Your task to perform on an android device: Open Amazon Image 0: 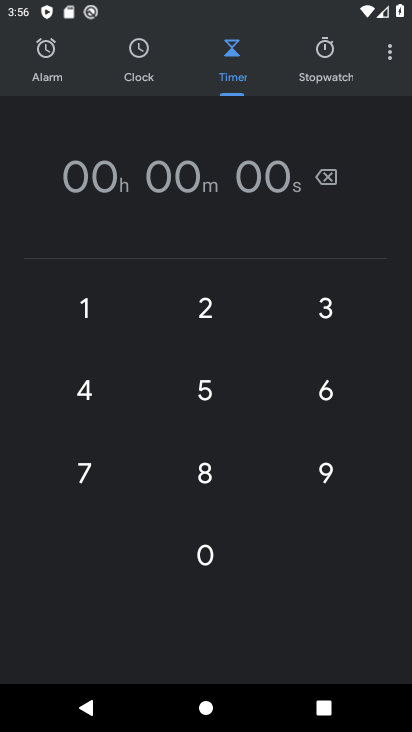
Step 0: press home button
Your task to perform on an android device: Open Amazon Image 1: 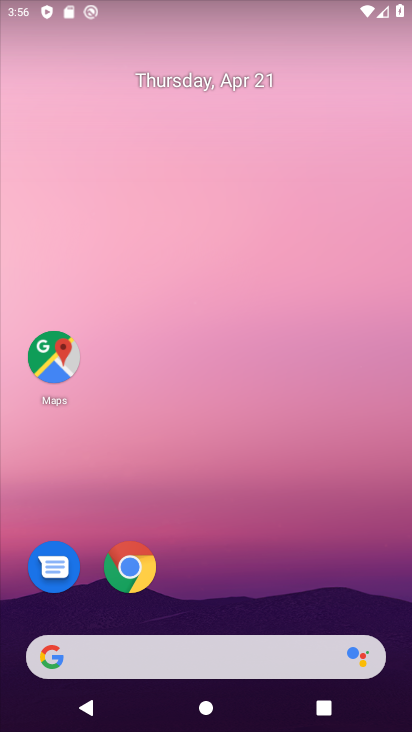
Step 1: click (124, 555)
Your task to perform on an android device: Open Amazon Image 2: 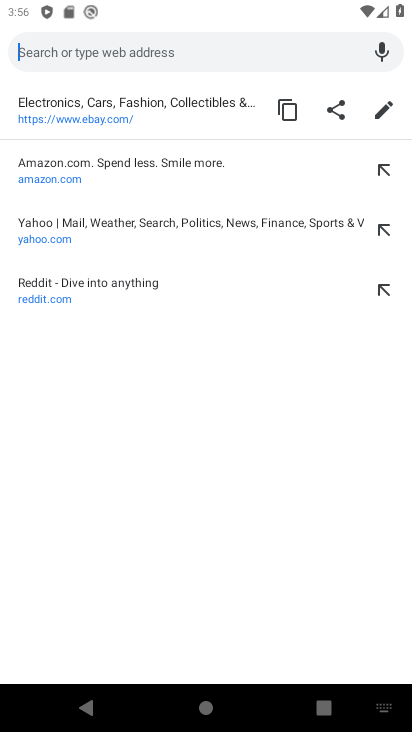
Step 2: type "amazon"
Your task to perform on an android device: Open Amazon Image 3: 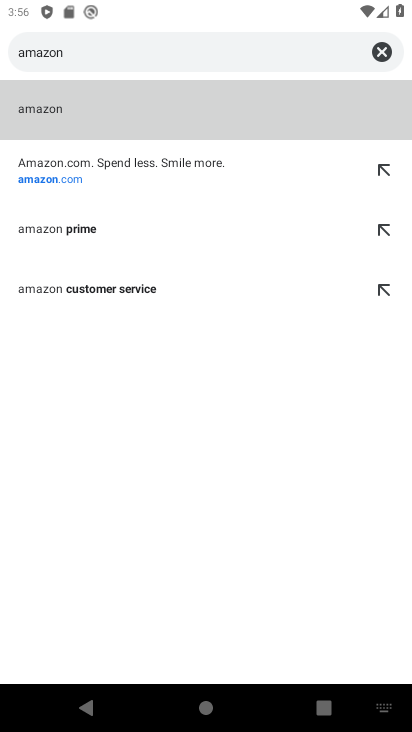
Step 3: click (129, 160)
Your task to perform on an android device: Open Amazon Image 4: 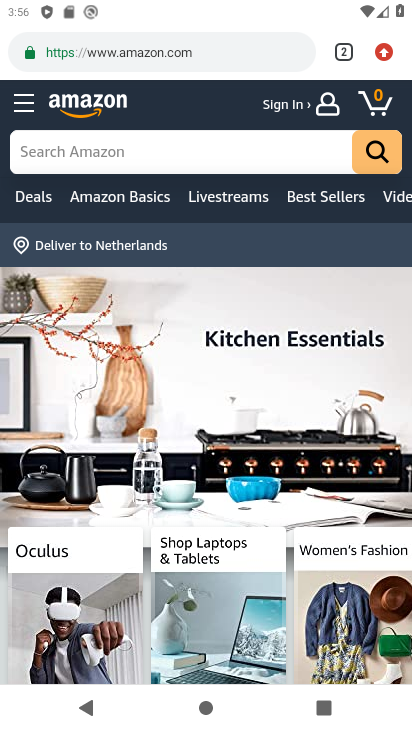
Step 4: task complete